Your task to perform on an android device: allow notifications from all sites in the chrome app Image 0: 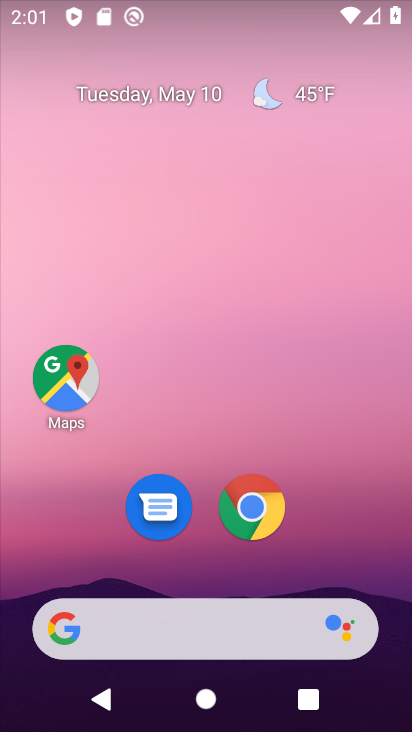
Step 0: click (251, 515)
Your task to perform on an android device: allow notifications from all sites in the chrome app Image 1: 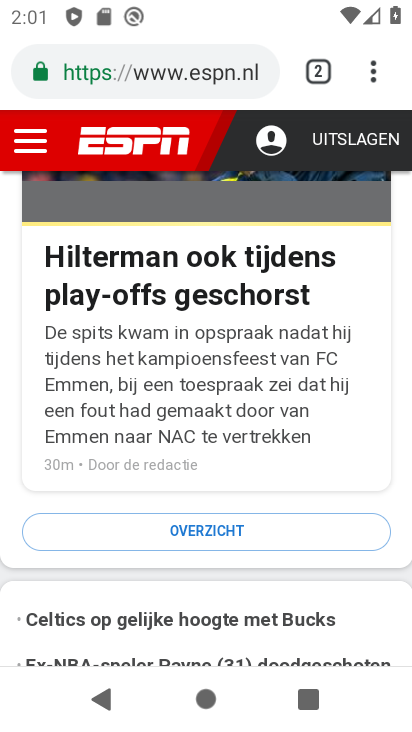
Step 1: drag from (378, 70) to (152, 494)
Your task to perform on an android device: allow notifications from all sites in the chrome app Image 2: 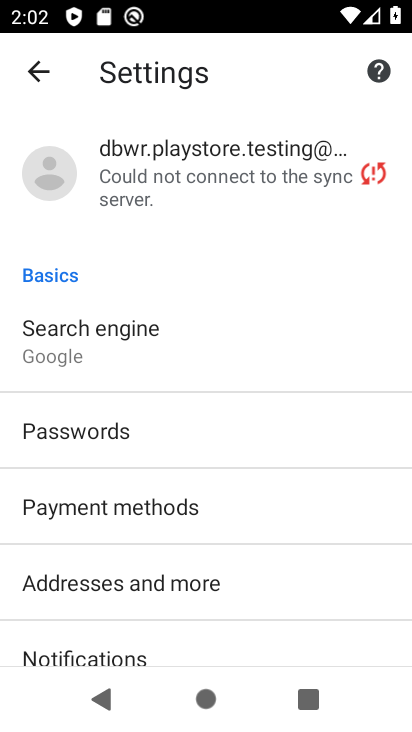
Step 2: drag from (154, 640) to (160, 348)
Your task to perform on an android device: allow notifications from all sites in the chrome app Image 3: 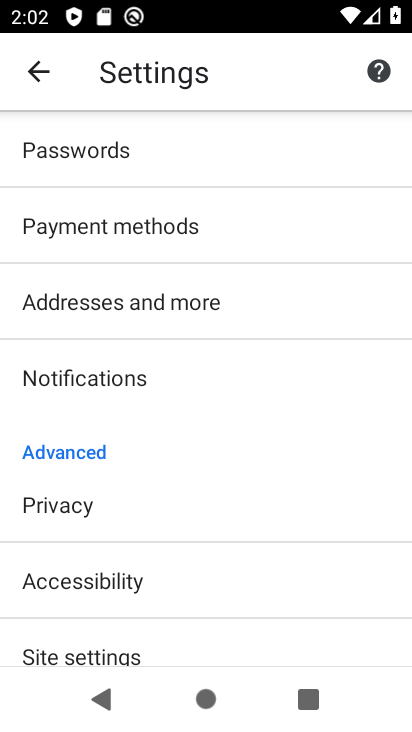
Step 3: click (113, 375)
Your task to perform on an android device: allow notifications from all sites in the chrome app Image 4: 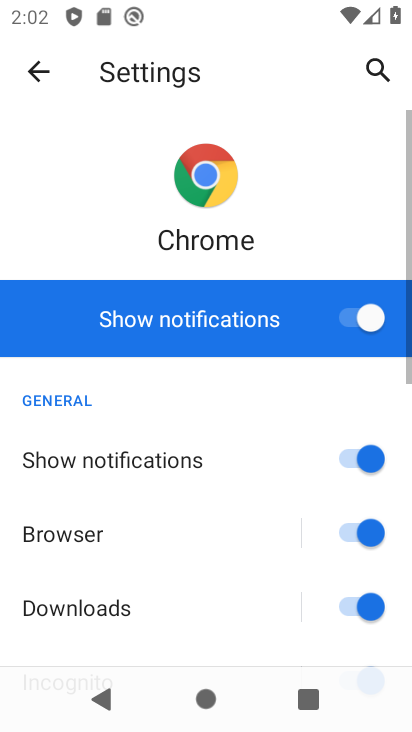
Step 4: task complete